Your task to perform on an android device: What's the news in Puerto Rico? Image 0: 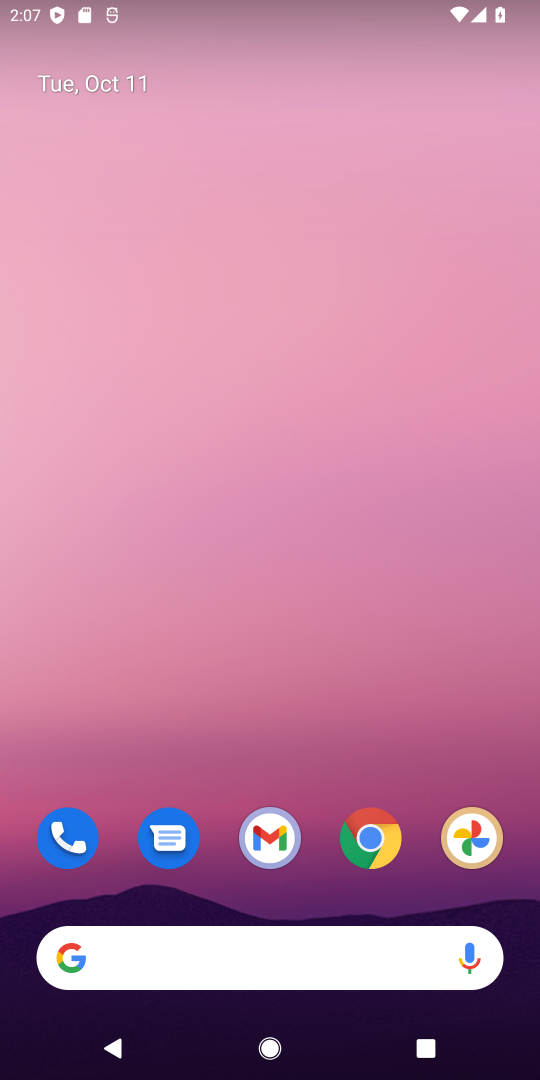
Step 0: click (382, 850)
Your task to perform on an android device: What's the news in Puerto Rico? Image 1: 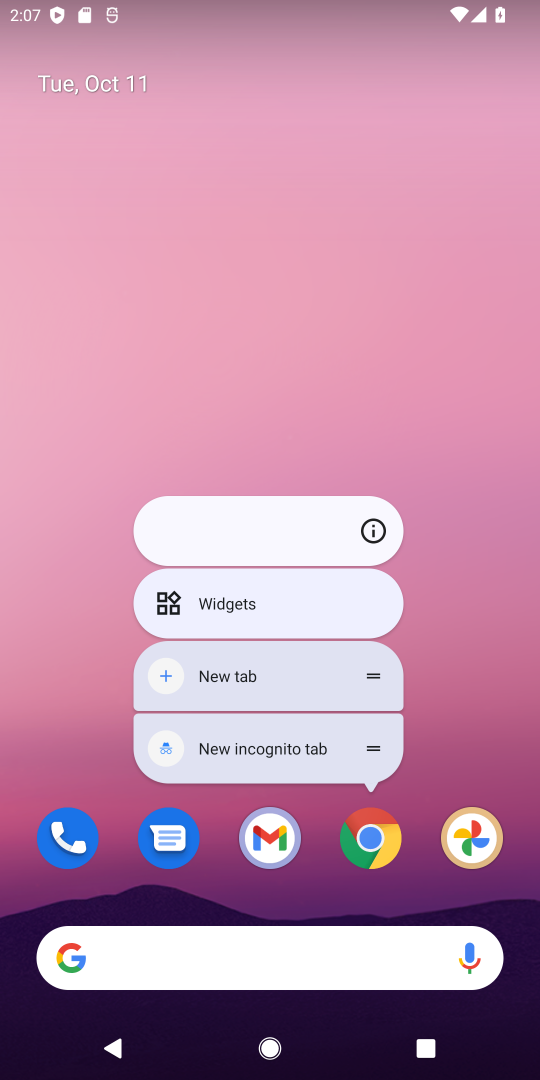
Step 1: click (373, 851)
Your task to perform on an android device: What's the news in Puerto Rico? Image 2: 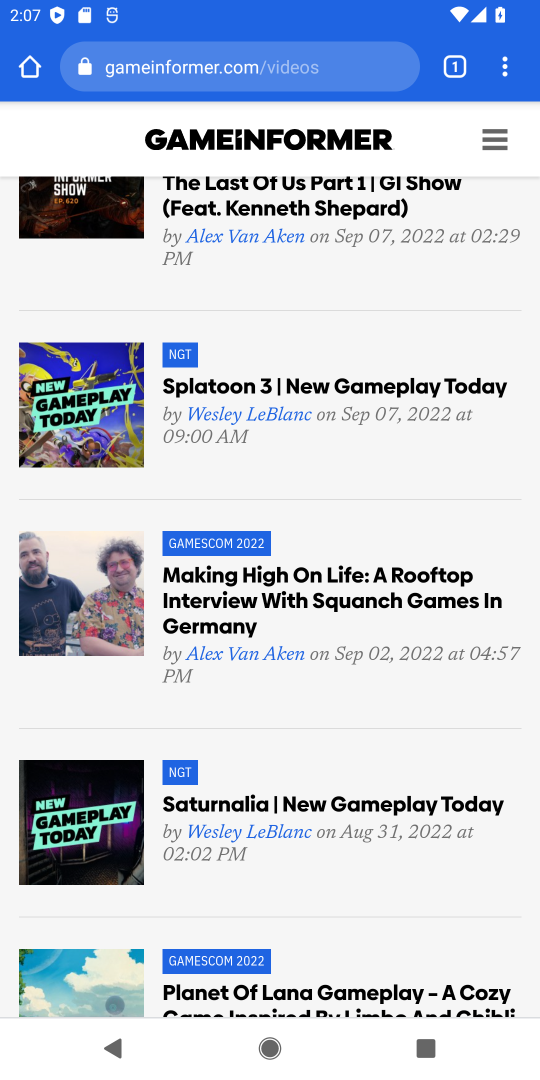
Step 2: click (256, 68)
Your task to perform on an android device: What's the news in Puerto Rico? Image 3: 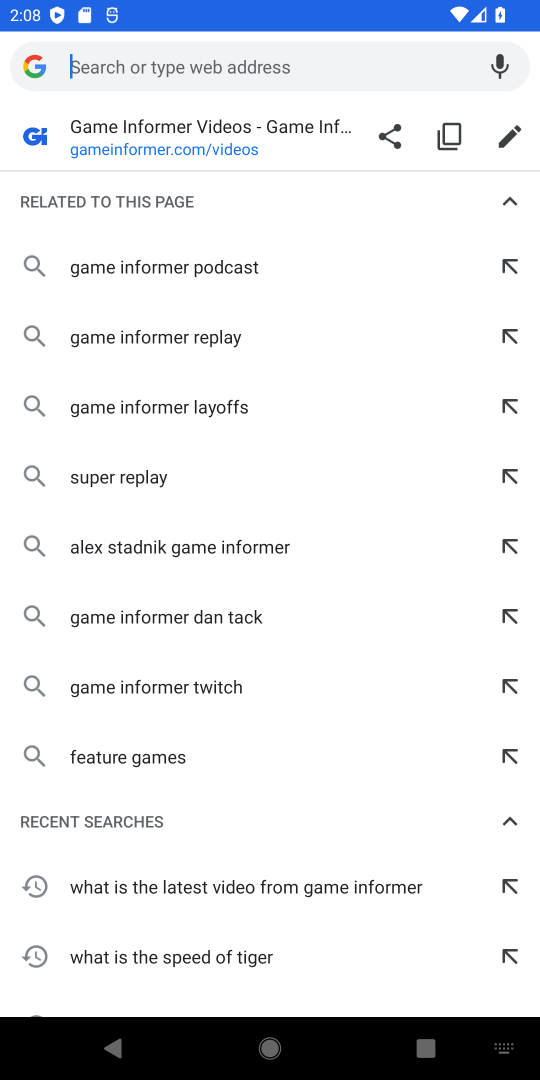
Step 3: type "whats the news in puerto rico"
Your task to perform on an android device: What's the news in Puerto Rico? Image 4: 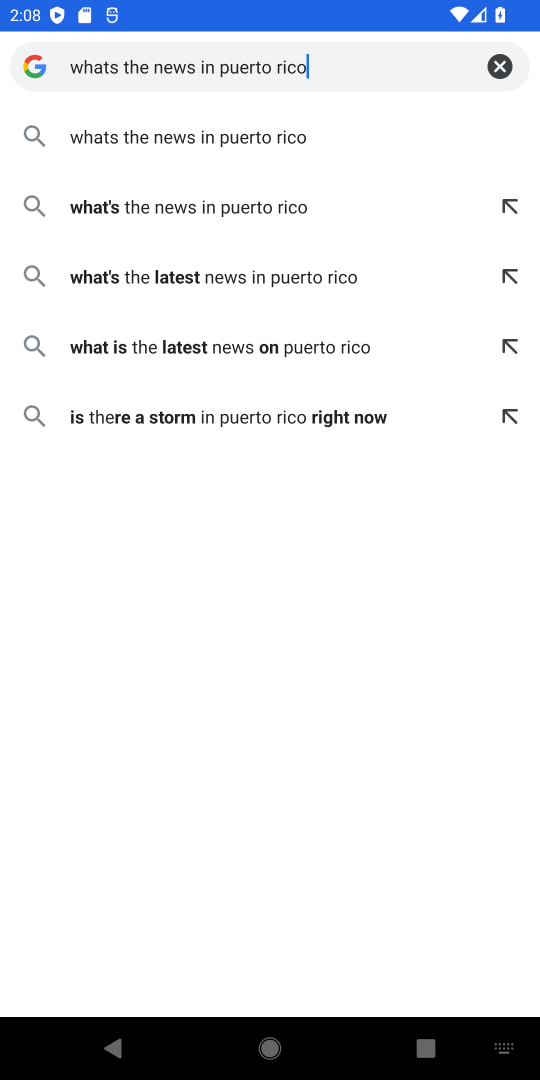
Step 4: click (201, 138)
Your task to perform on an android device: What's the news in Puerto Rico? Image 5: 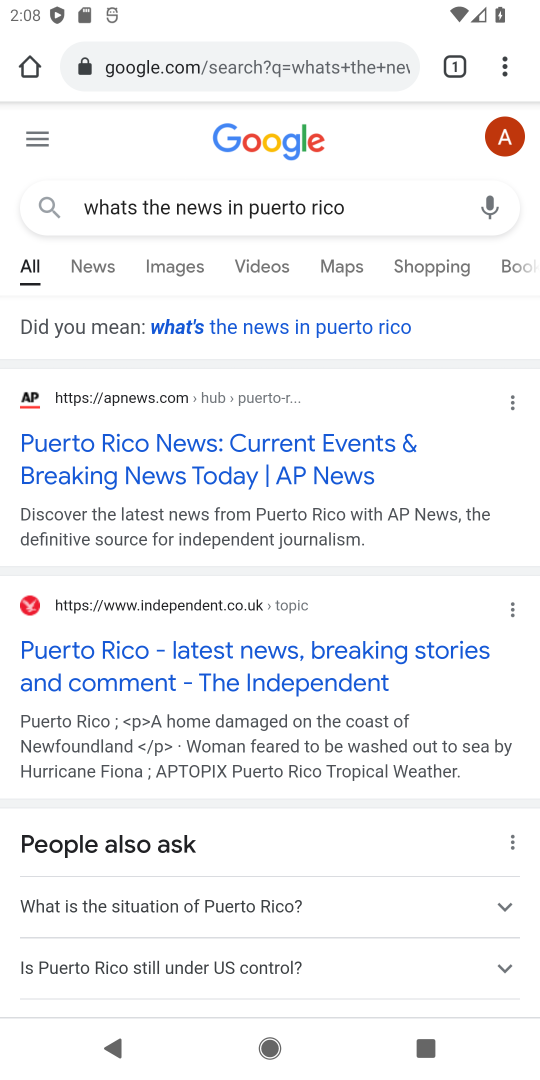
Step 5: click (202, 658)
Your task to perform on an android device: What's the news in Puerto Rico? Image 6: 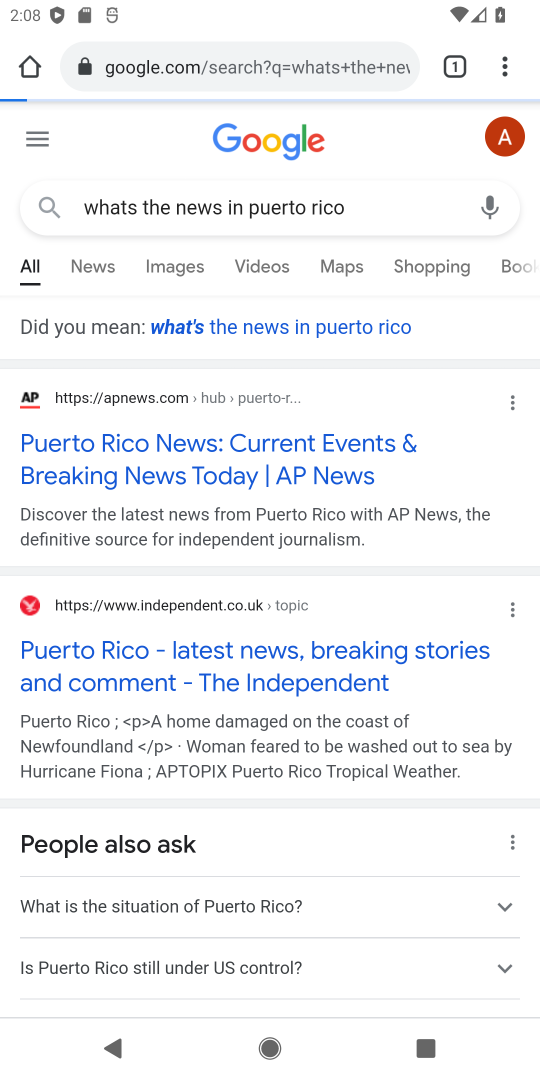
Step 6: click (204, 654)
Your task to perform on an android device: What's the news in Puerto Rico? Image 7: 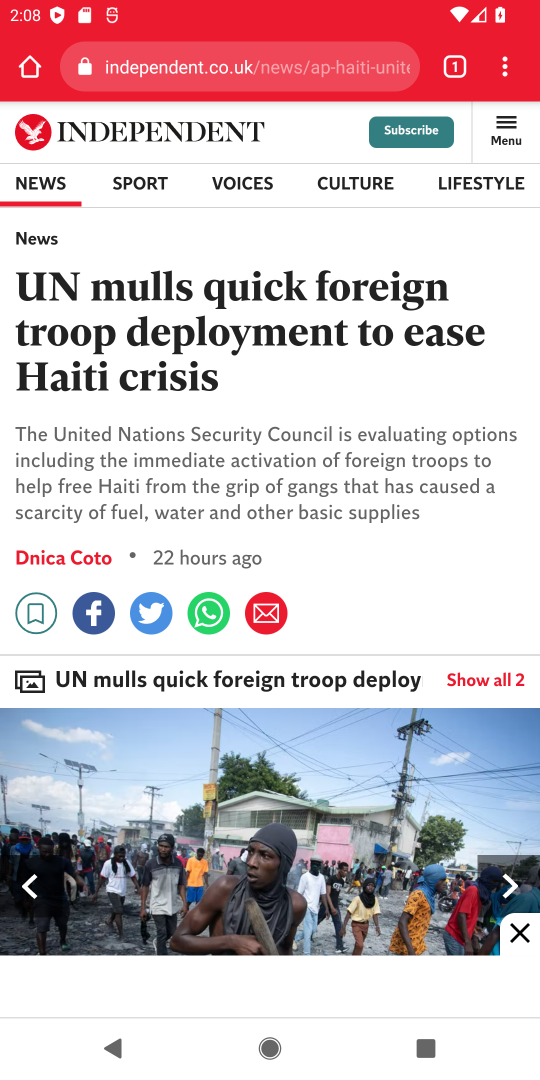
Step 7: drag from (299, 832) to (423, 368)
Your task to perform on an android device: What's the news in Puerto Rico? Image 8: 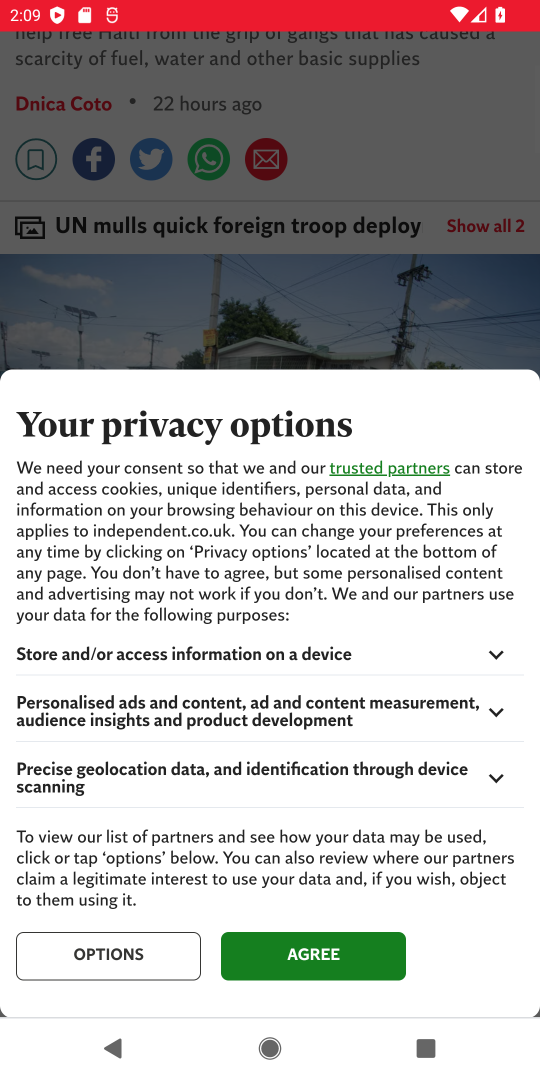
Step 8: drag from (269, 743) to (375, 392)
Your task to perform on an android device: What's the news in Puerto Rico? Image 9: 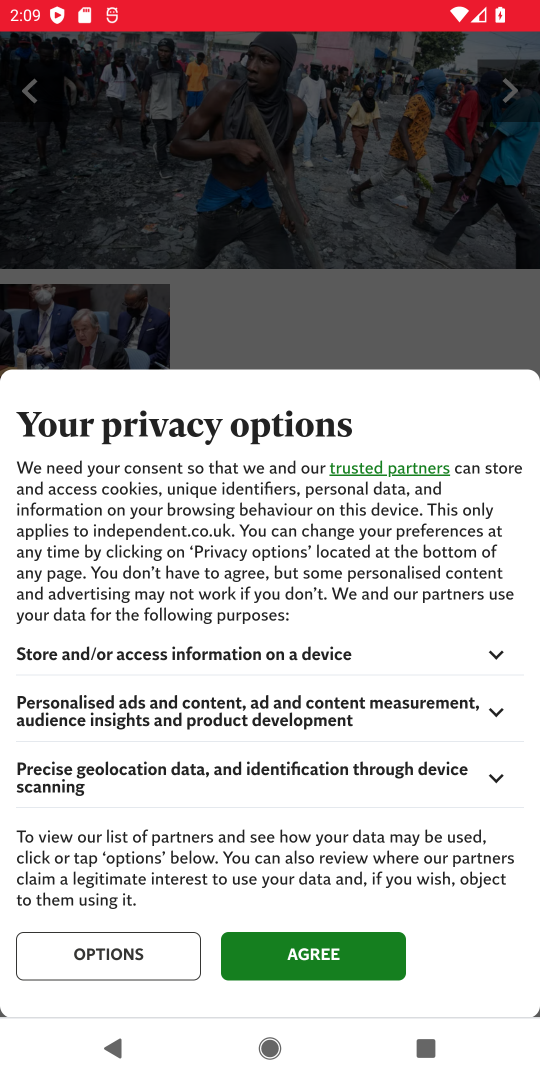
Step 9: click (277, 951)
Your task to perform on an android device: What's the news in Puerto Rico? Image 10: 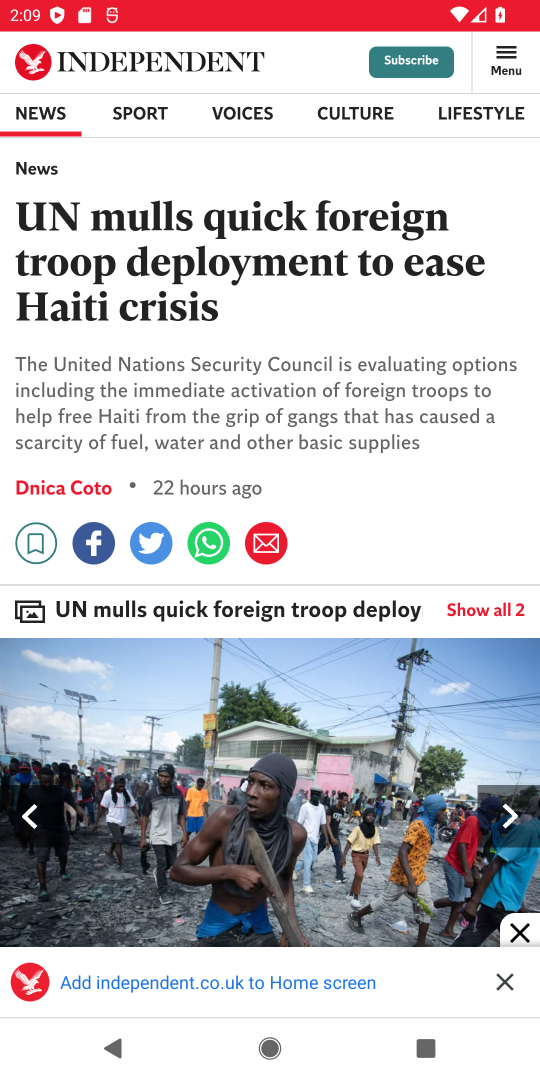
Step 10: task complete